Your task to perform on an android device: Clear all items from cart on amazon.com. Search for "razer kraken" on amazon.com, select the first entry, and add it to the cart. Image 0: 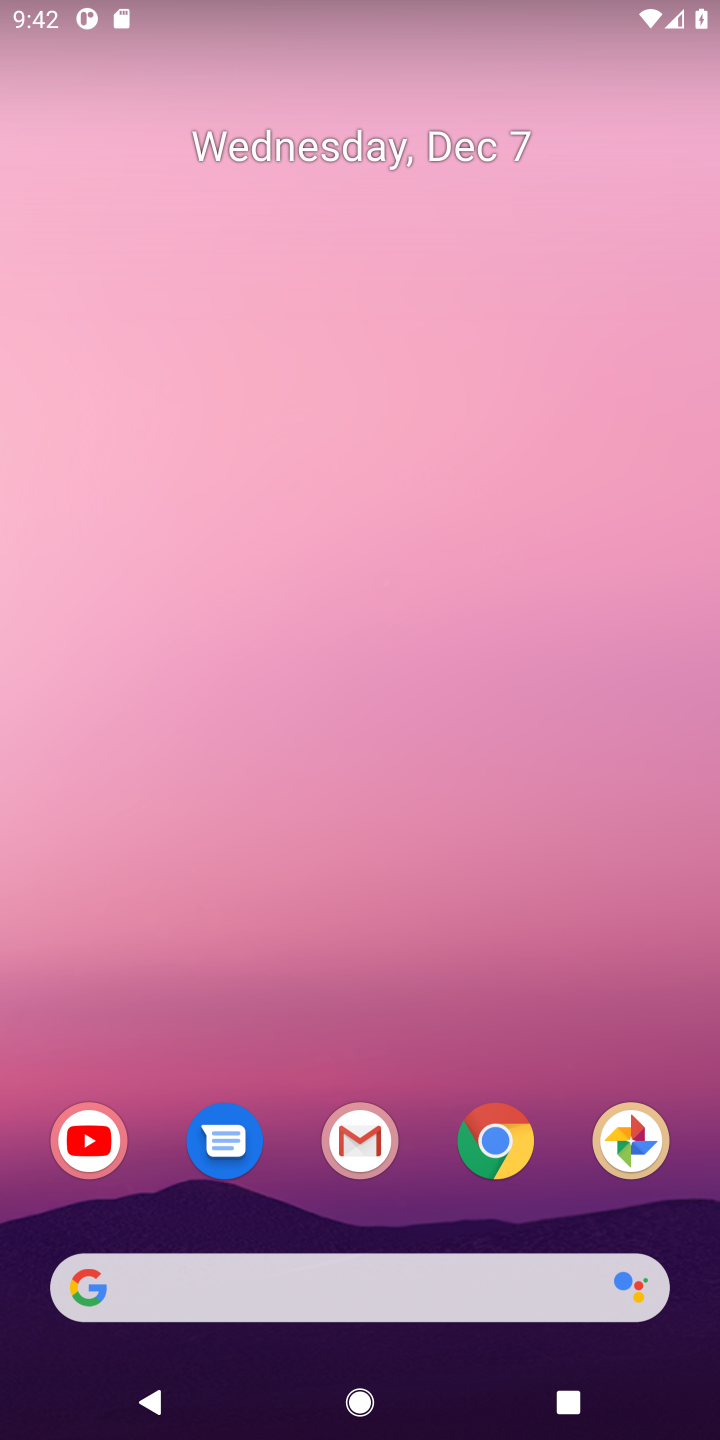
Step 0: press home button
Your task to perform on an android device: Clear all items from cart on amazon.com. Search for "razer kraken" on amazon.com, select the first entry, and add it to the cart. Image 1: 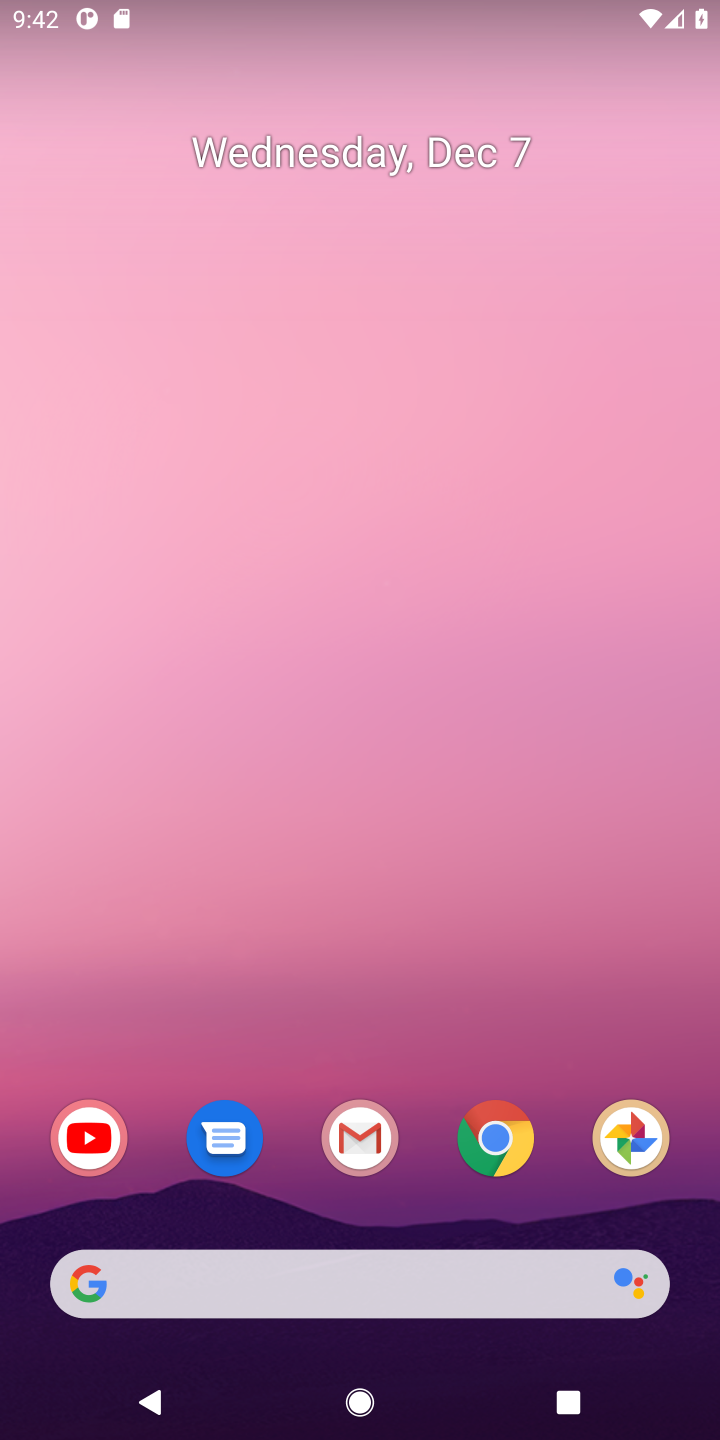
Step 1: click (135, 1283)
Your task to perform on an android device: Clear all items from cart on amazon.com. Search for "razer kraken" on amazon.com, select the first entry, and add it to the cart. Image 2: 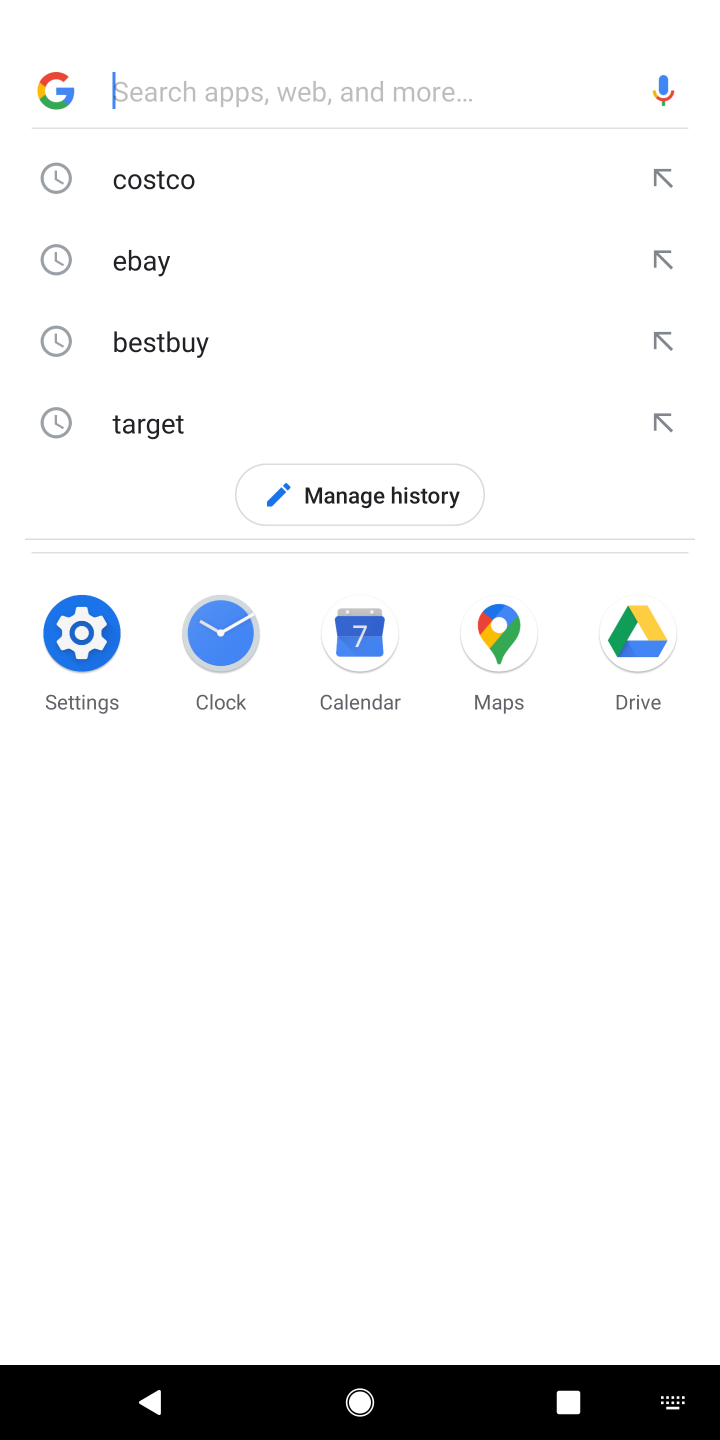
Step 2: type "amazon.com"
Your task to perform on an android device: Clear all items from cart on amazon.com. Search for "razer kraken" on amazon.com, select the first entry, and add it to the cart. Image 3: 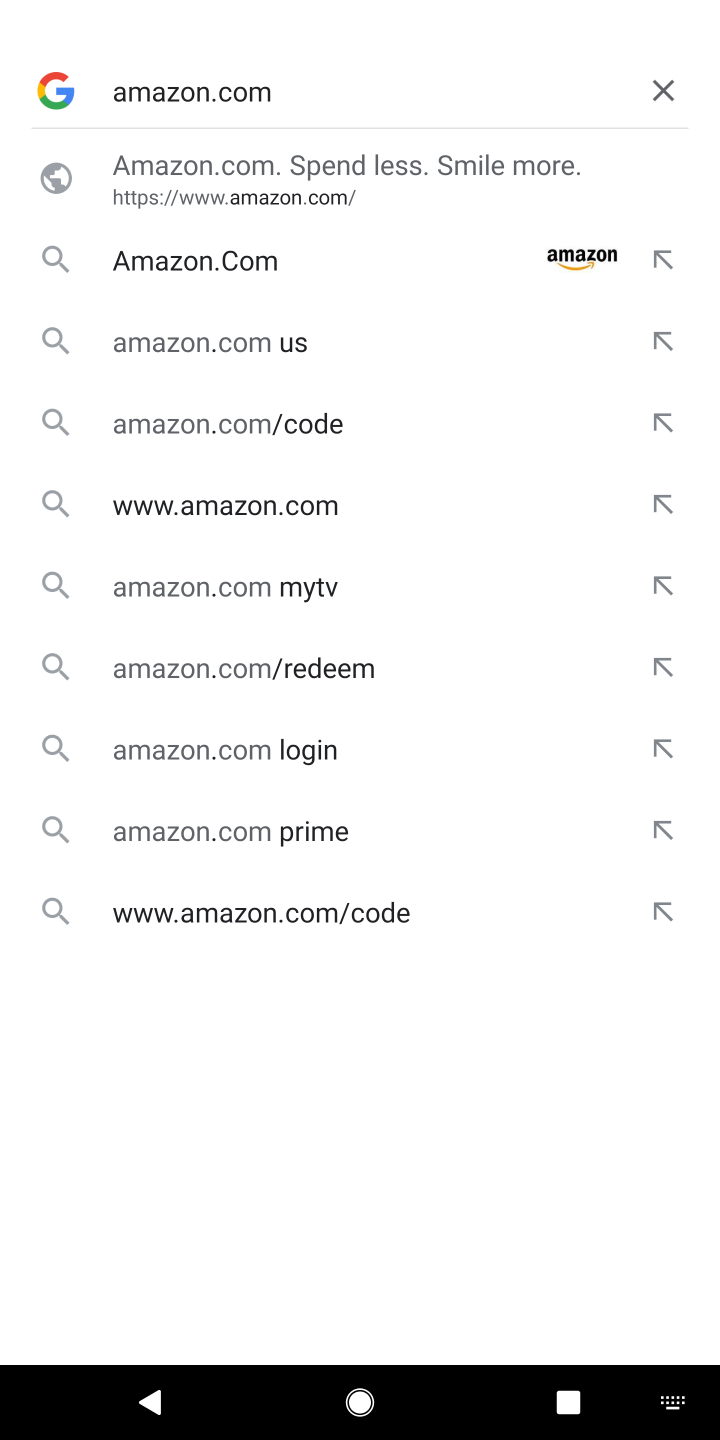
Step 3: press enter
Your task to perform on an android device: Clear all items from cart on amazon.com. Search for "razer kraken" on amazon.com, select the first entry, and add it to the cart. Image 4: 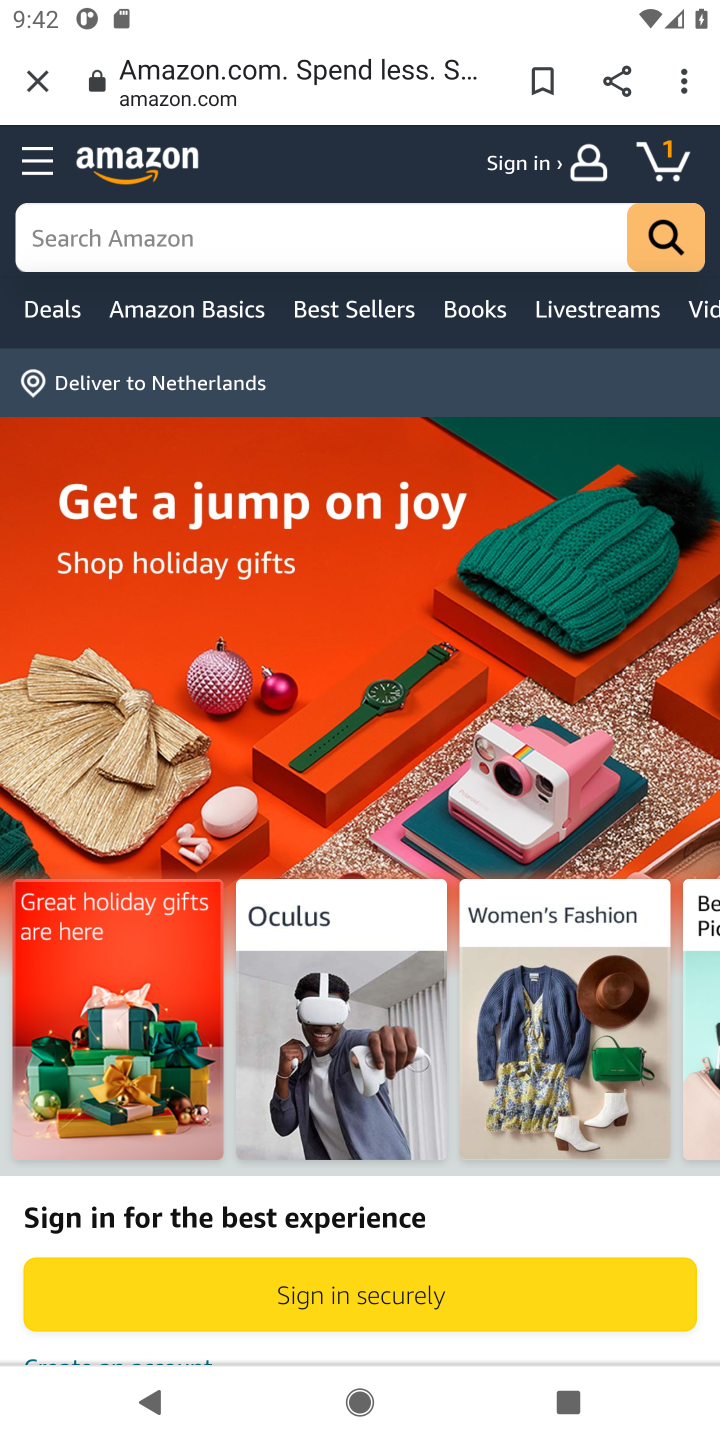
Step 4: click (668, 151)
Your task to perform on an android device: Clear all items from cart on amazon.com. Search for "razer kraken" on amazon.com, select the first entry, and add it to the cart. Image 5: 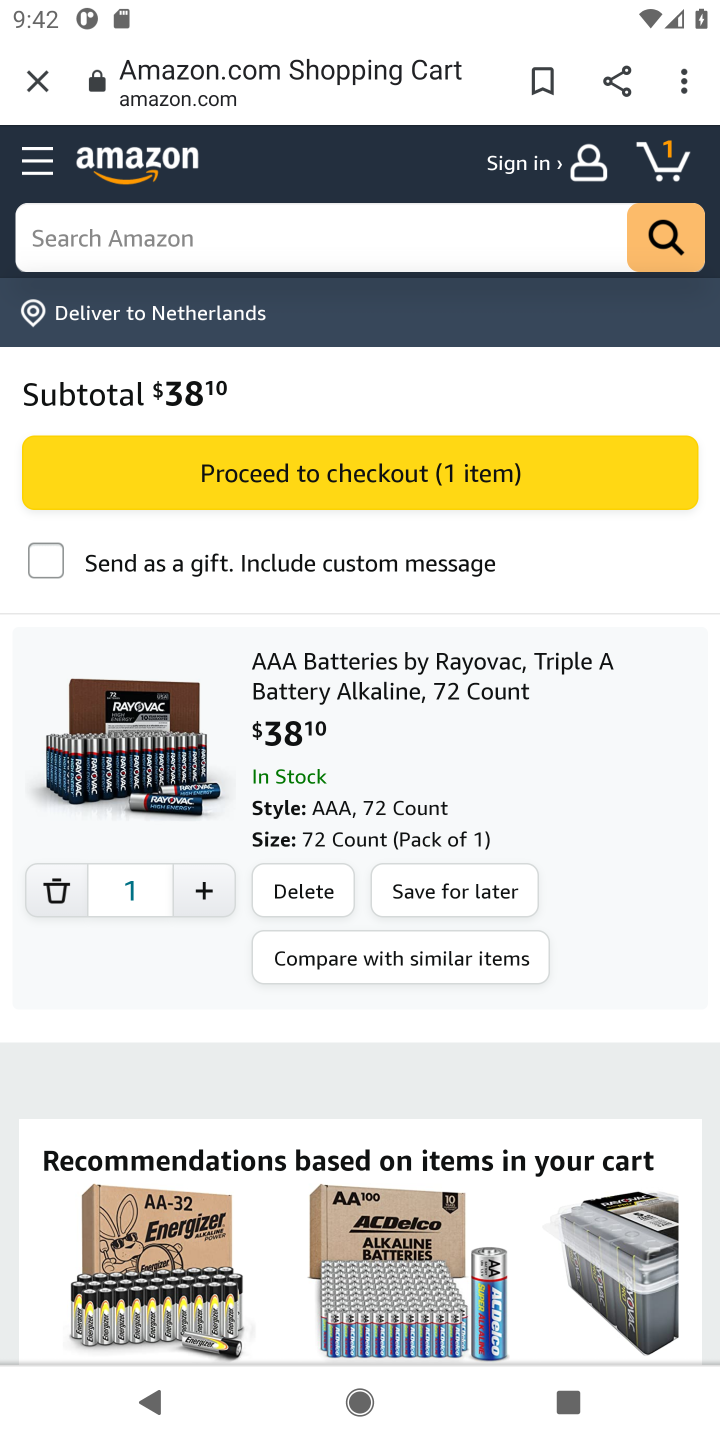
Step 5: click (54, 897)
Your task to perform on an android device: Clear all items from cart on amazon.com. Search for "razer kraken" on amazon.com, select the first entry, and add it to the cart. Image 6: 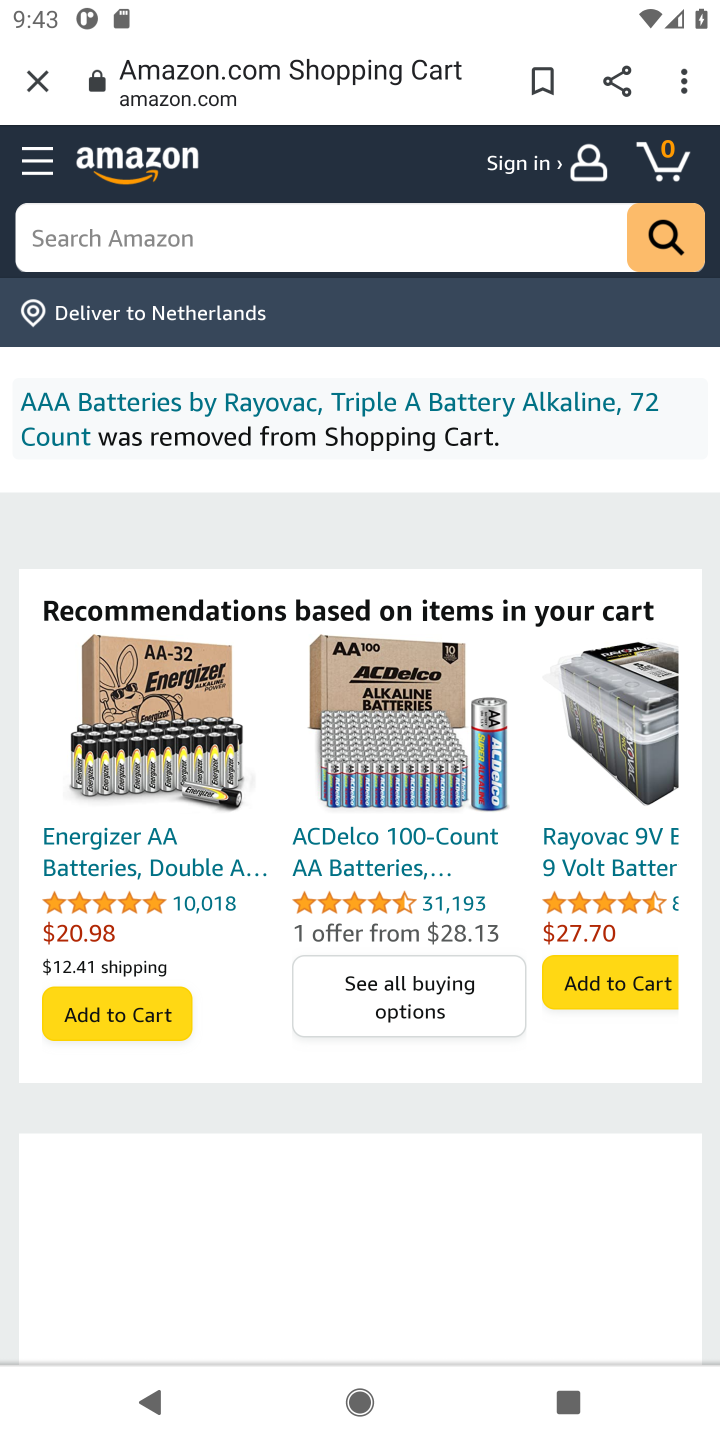
Step 6: click (175, 241)
Your task to perform on an android device: Clear all items from cart on amazon.com. Search for "razer kraken" on amazon.com, select the first entry, and add it to the cart. Image 7: 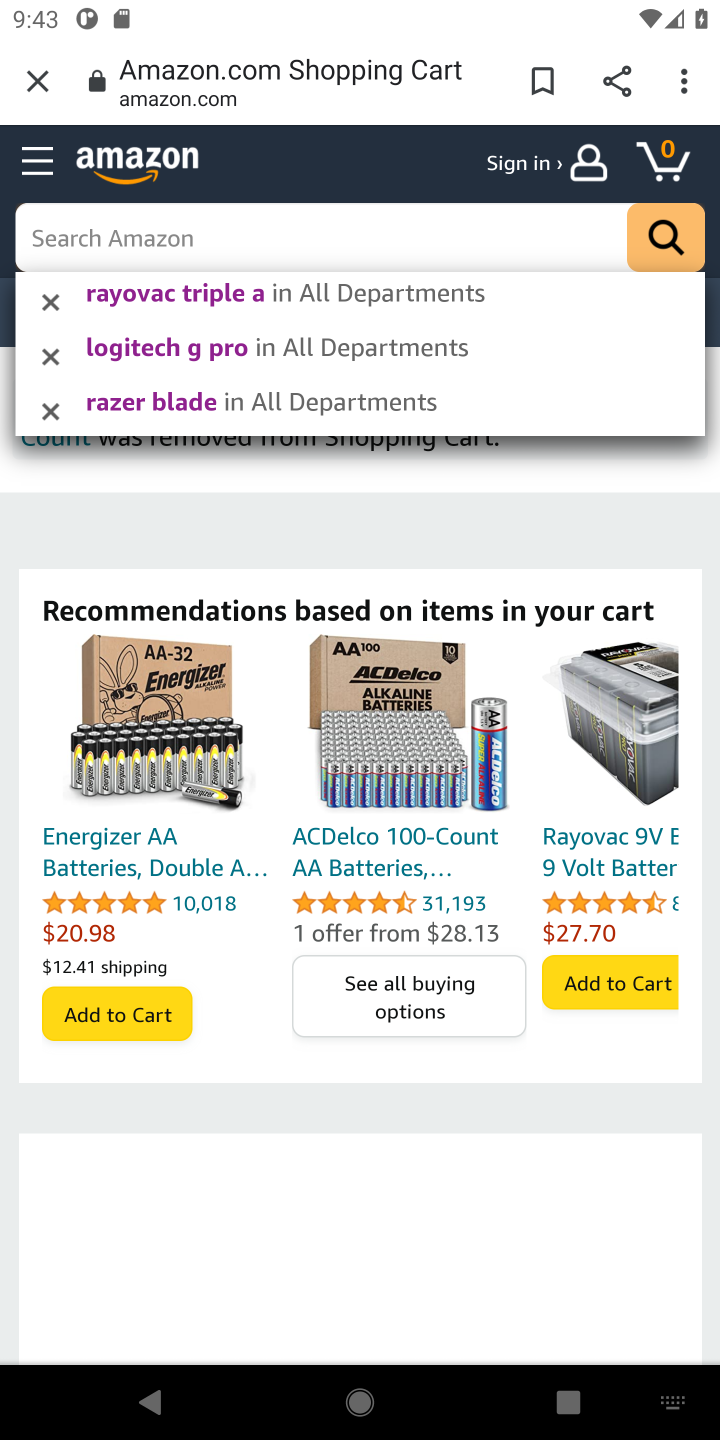
Step 7: type "razer kraken"
Your task to perform on an android device: Clear all items from cart on amazon.com. Search for "razer kraken" on amazon.com, select the first entry, and add it to the cart. Image 8: 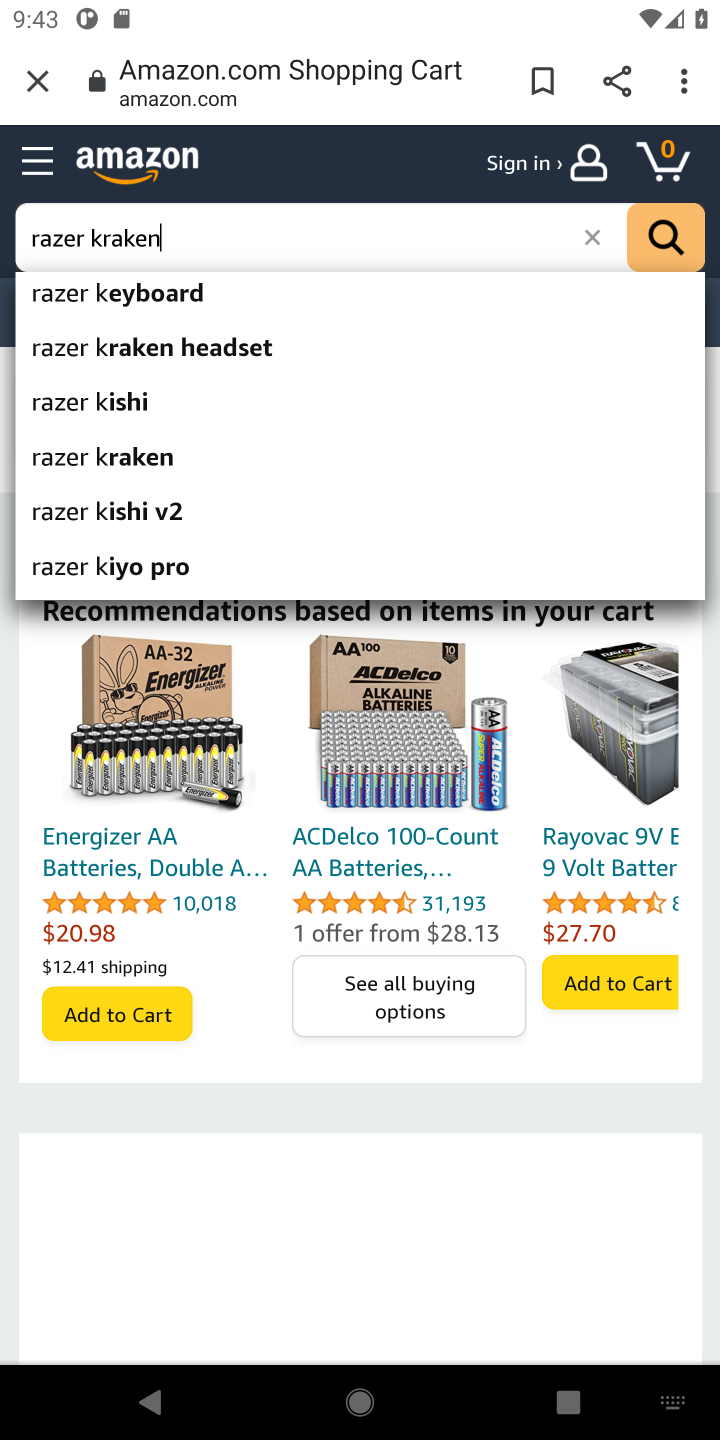
Step 8: press enter
Your task to perform on an android device: Clear all items from cart on amazon.com. Search for "razer kraken" on amazon.com, select the first entry, and add it to the cart. Image 9: 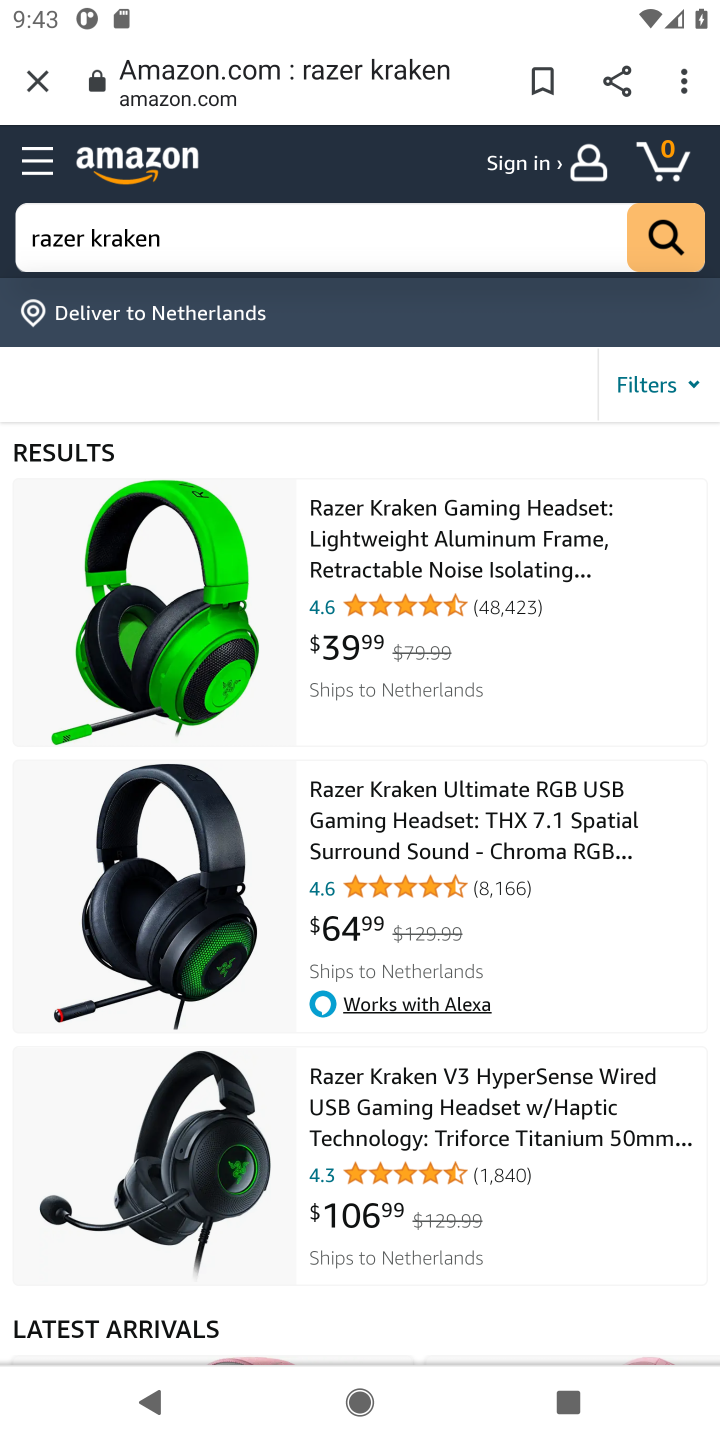
Step 9: click (378, 530)
Your task to perform on an android device: Clear all items from cart on amazon.com. Search for "razer kraken" on amazon.com, select the first entry, and add it to the cart. Image 10: 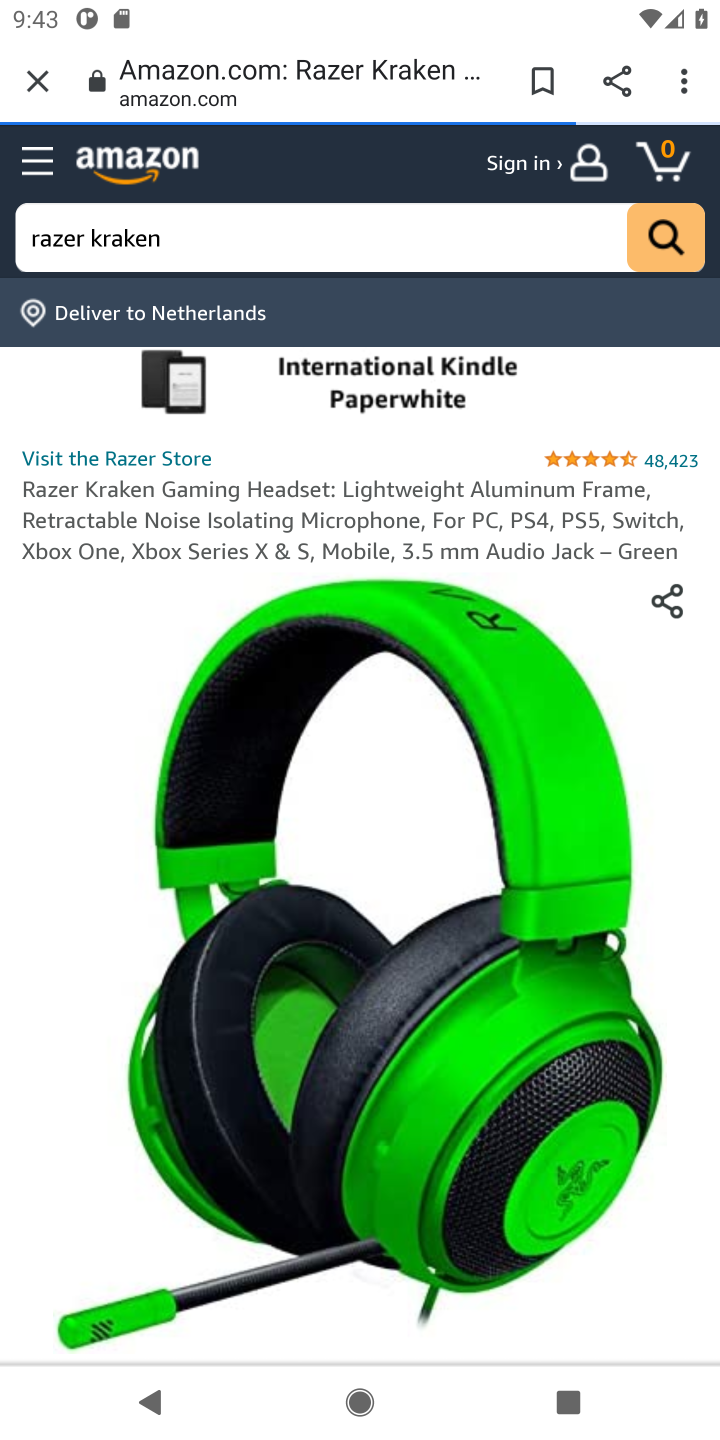
Step 10: drag from (385, 1165) to (374, 433)
Your task to perform on an android device: Clear all items from cart on amazon.com. Search for "razer kraken" on amazon.com, select the first entry, and add it to the cart. Image 11: 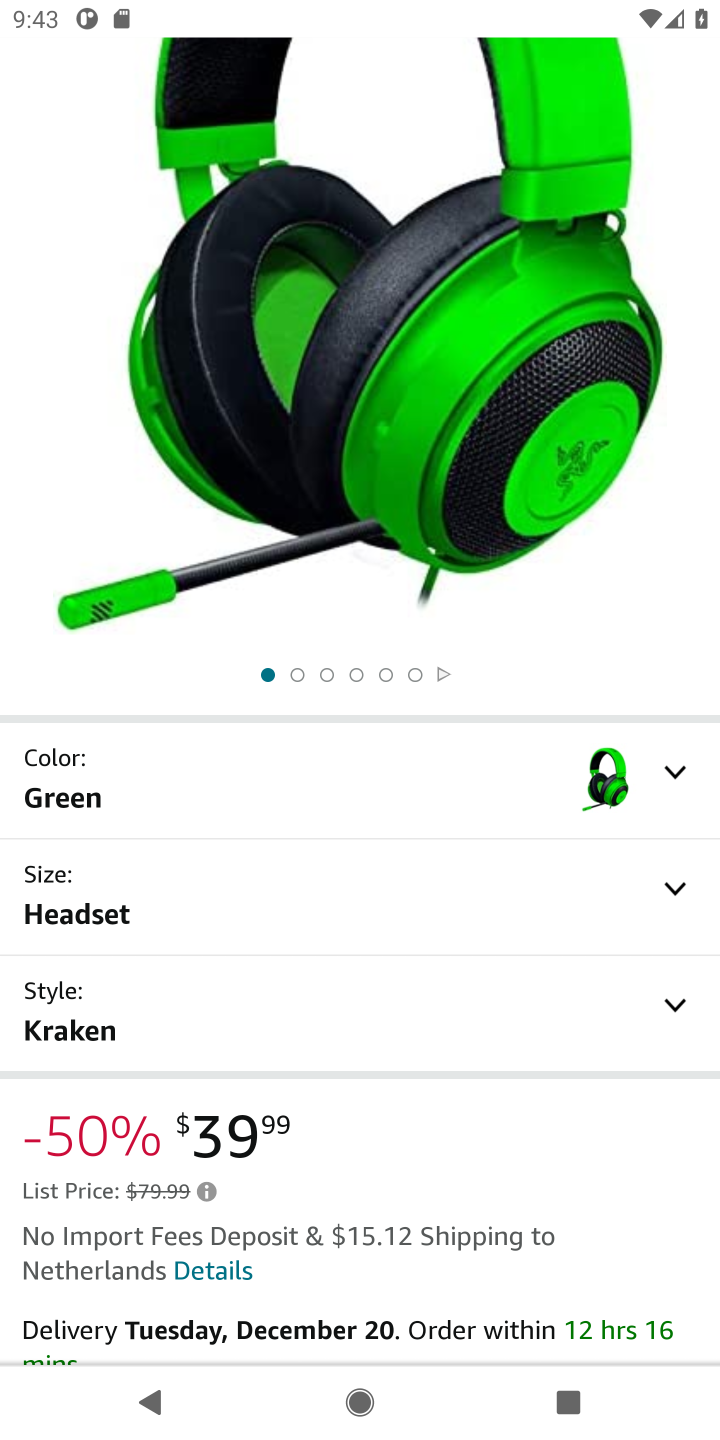
Step 11: drag from (333, 1024) to (410, 380)
Your task to perform on an android device: Clear all items from cart on amazon.com. Search for "razer kraken" on amazon.com, select the first entry, and add it to the cart. Image 12: 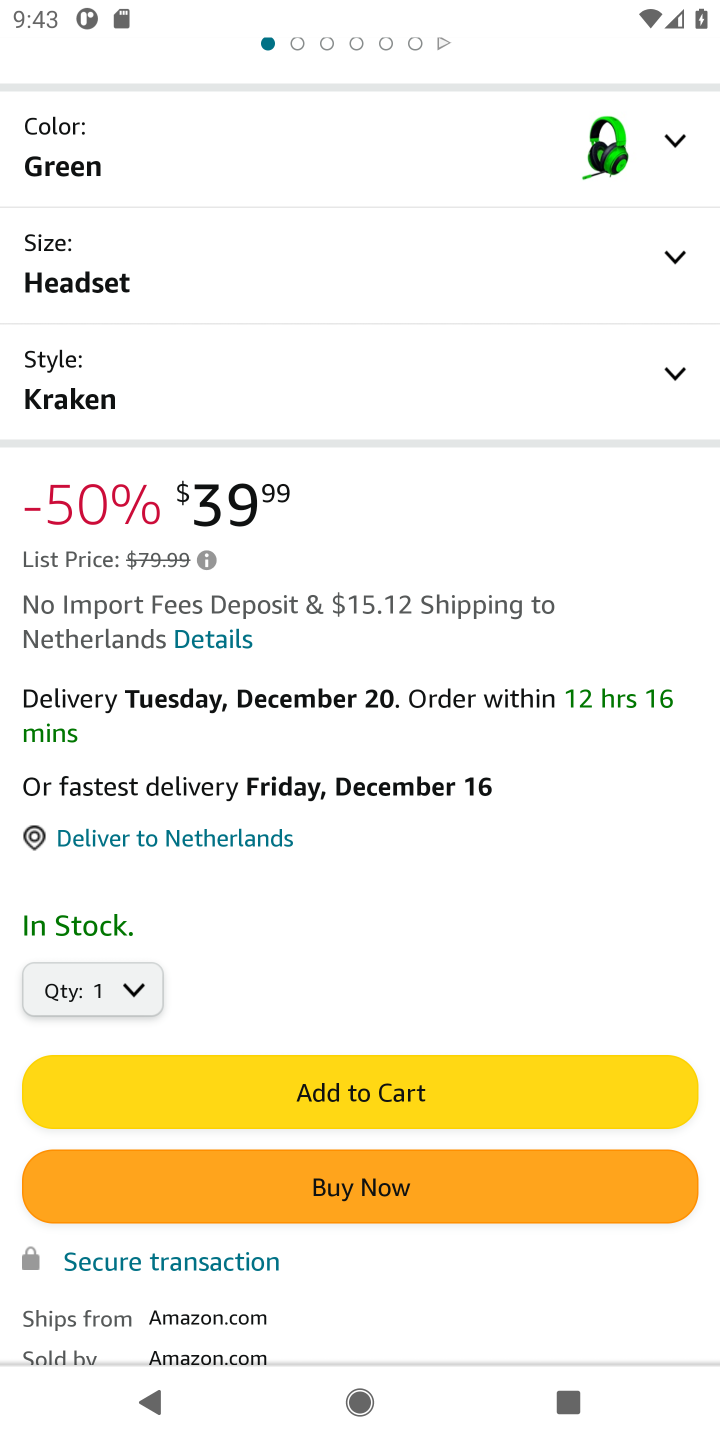
Step 12: drag from (396, 900) to (416, 382)
Your task to perform on an android device: Clear all items from cart on amazon.com. Search for "razer kraken" on amazon.com, select the first entry, and add it to the cart. Image 13: 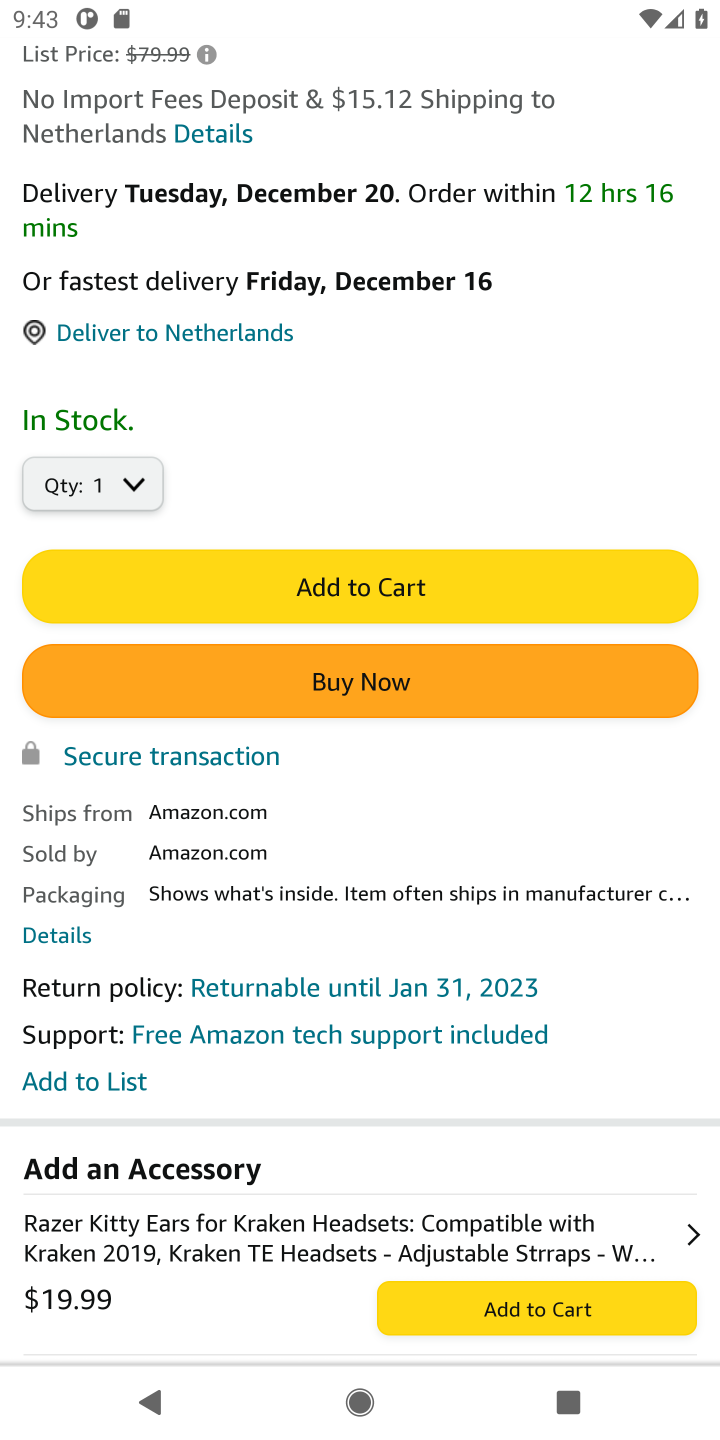
Step 13: click (353, 588)
Your task to perform on an android device: Clear all items from cart on amazon.com. Search for "razer kraken" on amazon.com, select the first entry, and add it to the cart. Image 14: 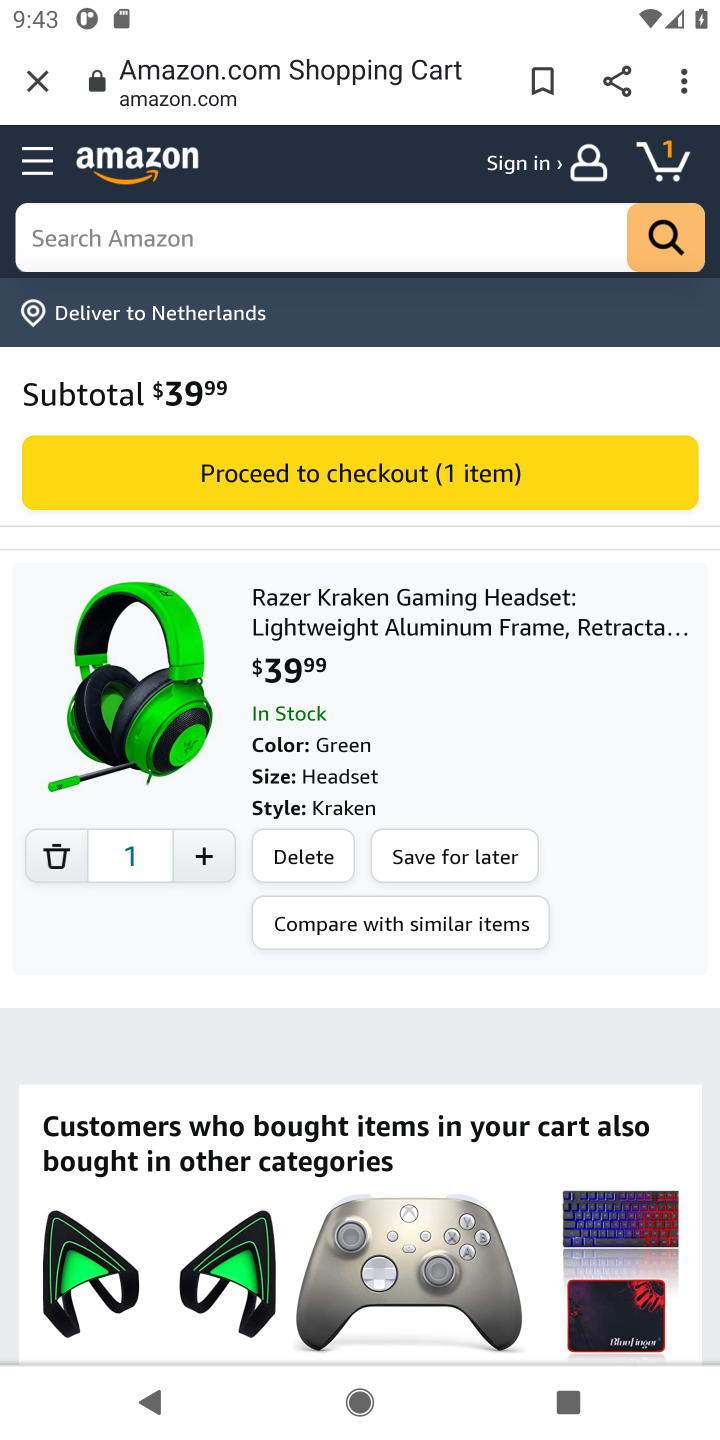
Step 14: task complete